Your task to perform on an android device: turn off notifications in google photos Image 0: 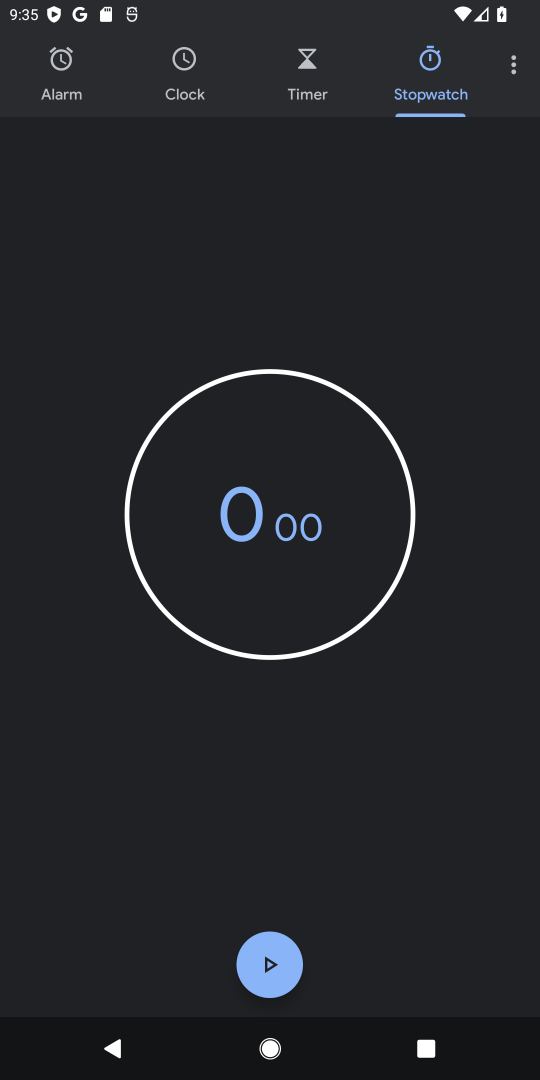
Step 0: press home button
Your task to perform on an android device: turn off notifications in google photos Image 1: 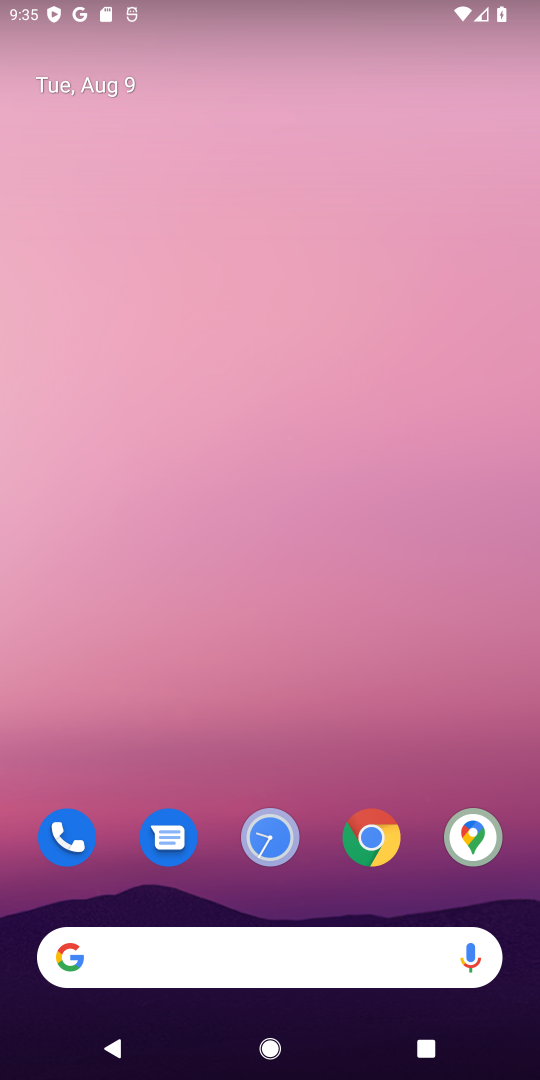
Step 1: drag from (318, 916) to (226, 128)
Your task to perform on an android device: turn off notifications in google photos Image 2: 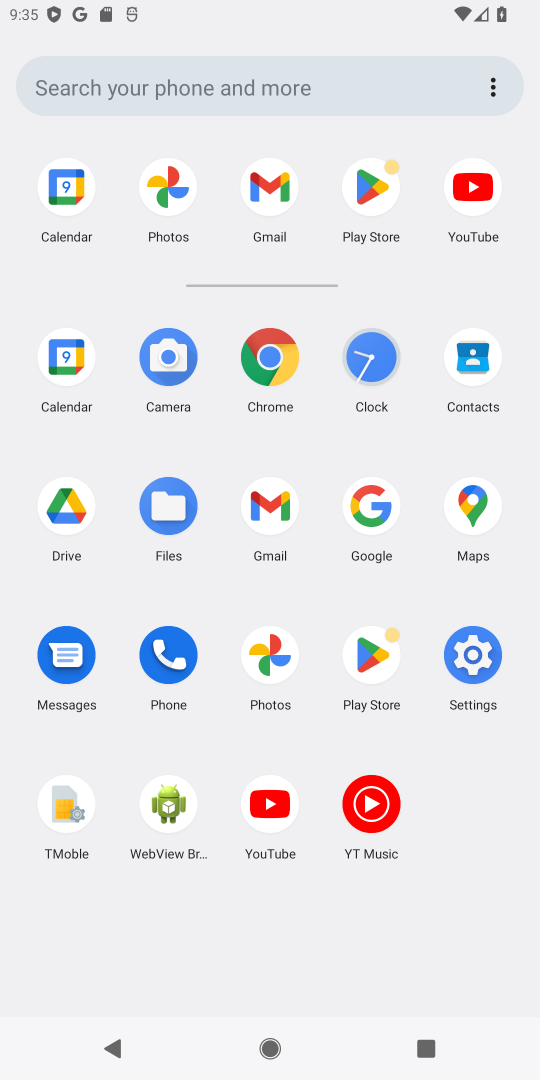
Step 2: click (269, 649)
Your task to perform on an android device: turn off notifications in google photos Image 3: 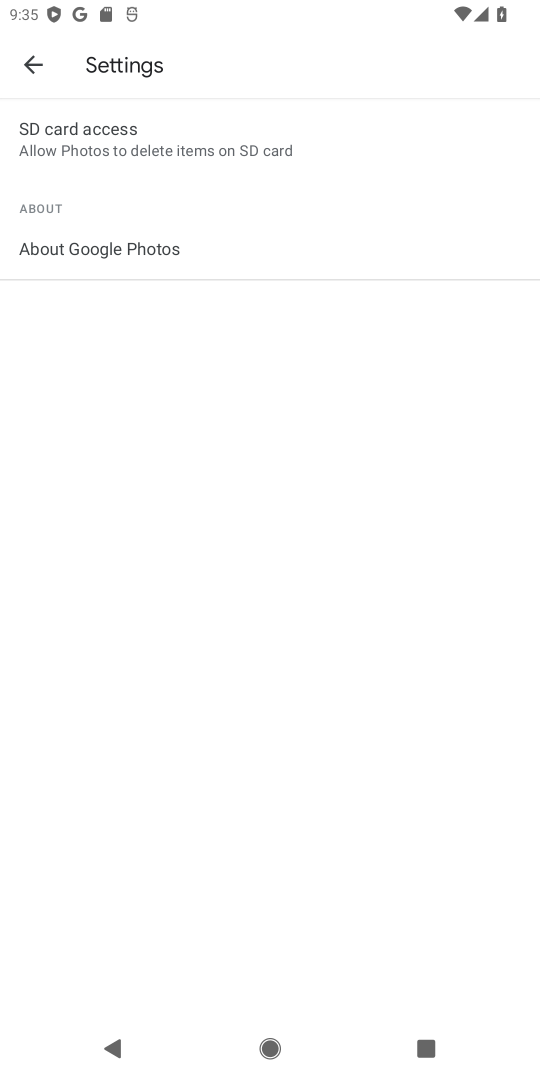
Step 3: click (37, 63)
Your task to perform on an android device: turn off notifications in google photos Image 4: 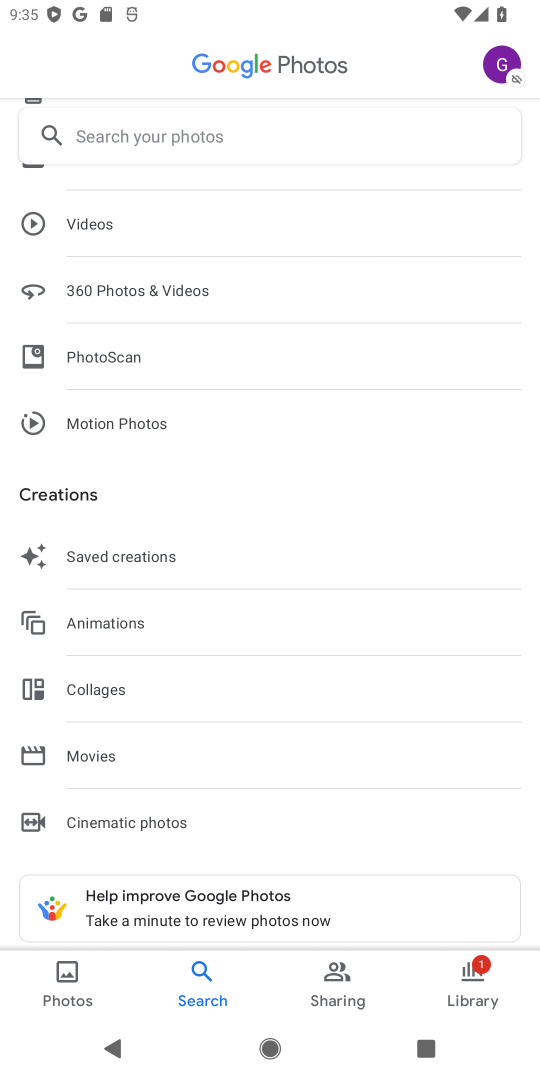
Step 4: click (502, 54)
Your task to perform on an android device: turn off notifications in google photos Image 5: 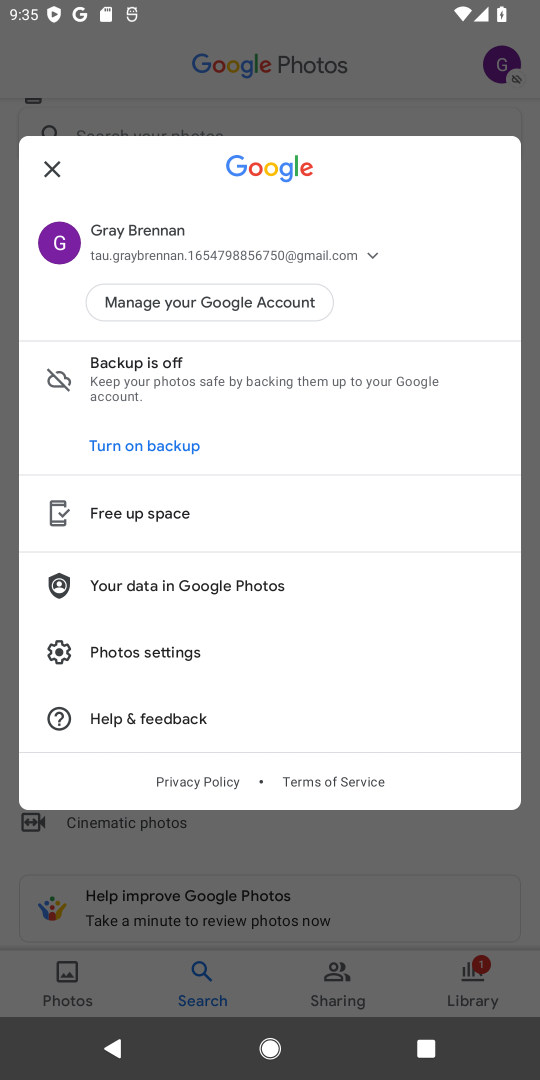
Step 5: click (166, 649)
Your task to perform on an android device: turn off notifications in google photos Image 6: 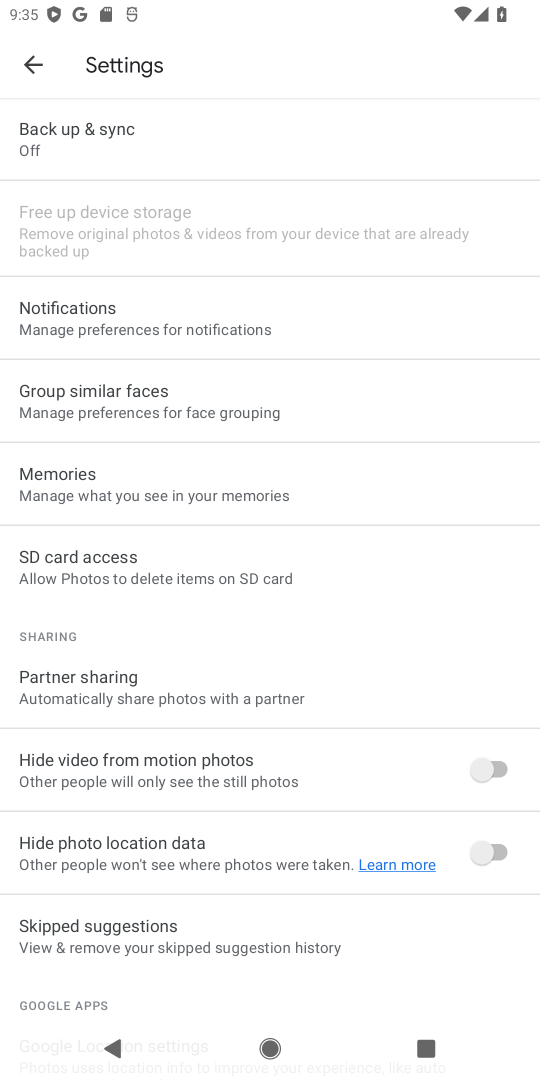
Step 6: click (81, 317)
Your task to perform on an android device: turn off notifications in google photos Image 7: 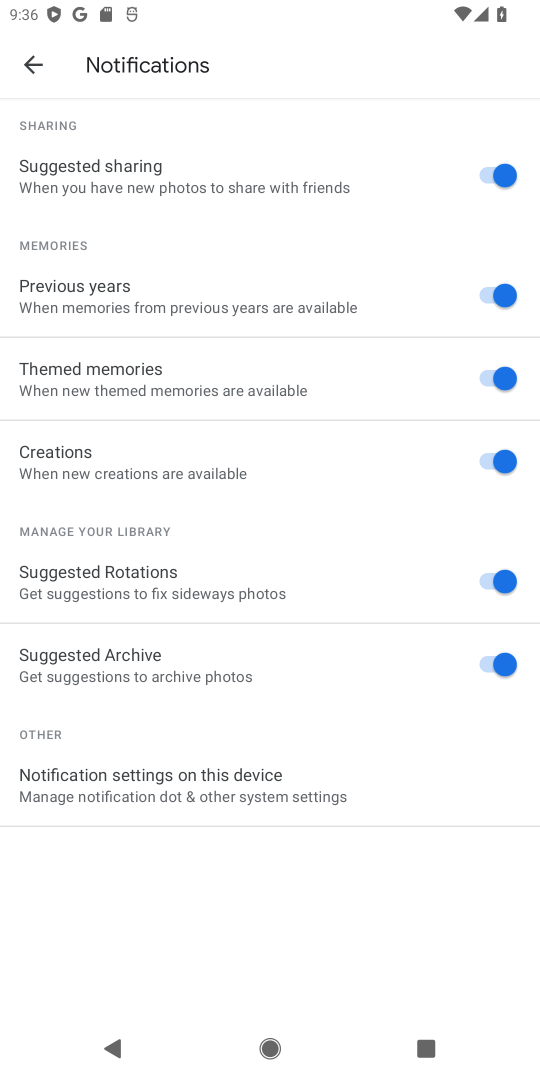
Step 7: click (180, 778)
Your task to perform on an android device: turn off notifications in google photos Image 8: 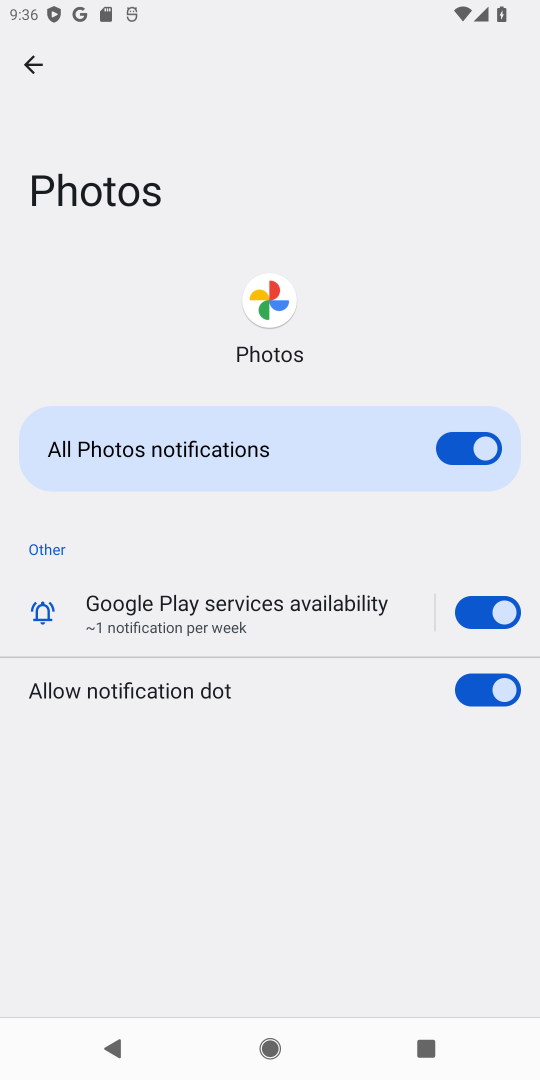
Step 8: click (457, 440)
Your task to perform on an android device: turn off notifications in google photos Image 9: 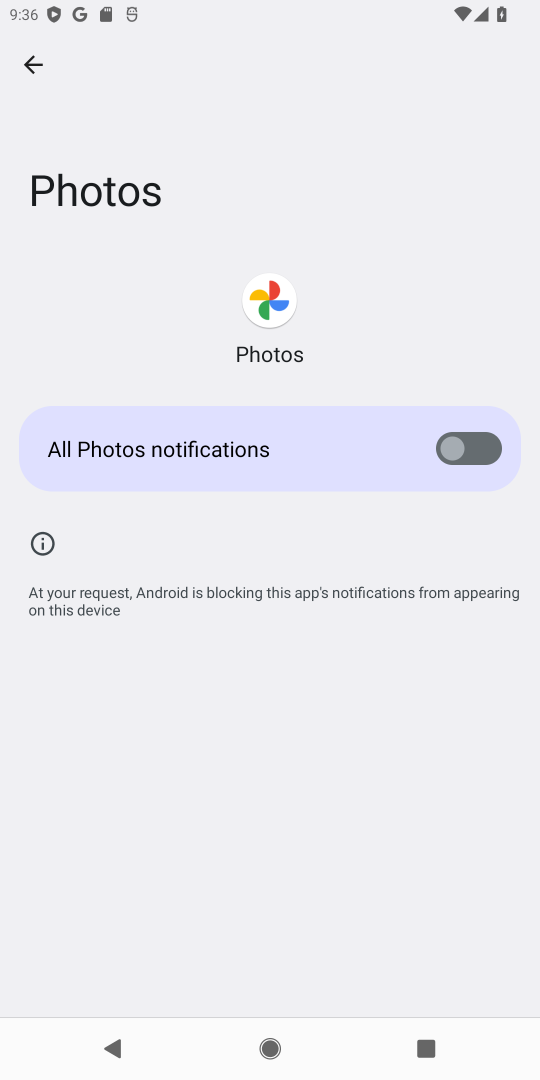
Step 9: task complete